Your task to perform on an android device: open the mobile data screen to see how much data has been used Image 0: 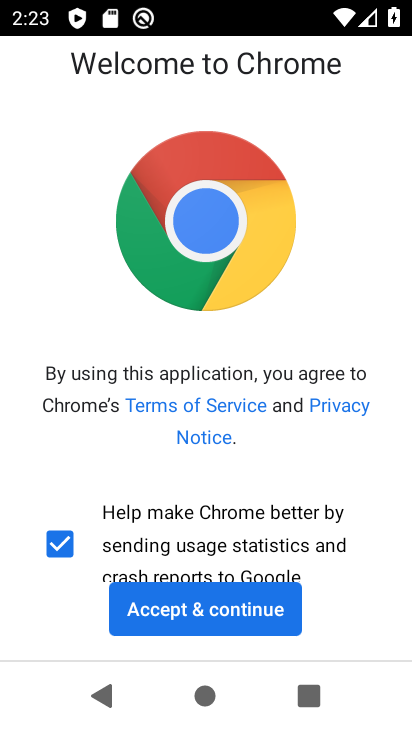
Step 0: press home button
Your task to perform on an android device: open the mobile data screen to see how much data has been used Image 1: 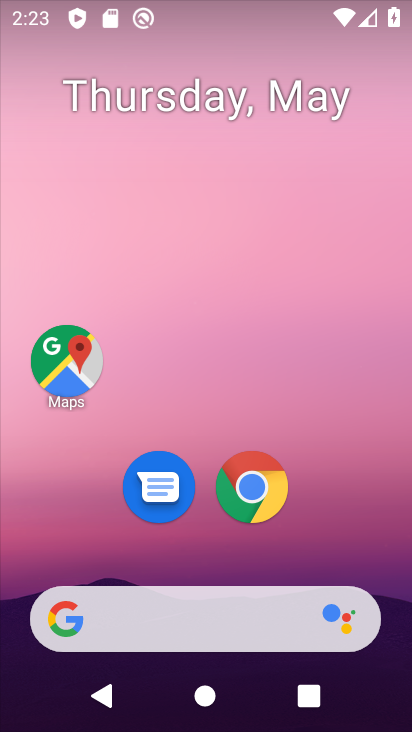
Step 1: drag from (227, 572) to (238, 176)
Your task to perform on an android device: open the mobile data screen to see how much data has been used Image 2: 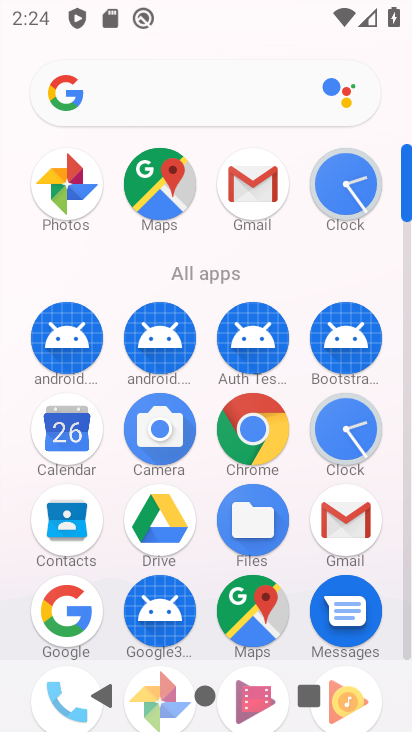
Step 2: drag from (180, 476) to (220, 196)
Your task to perform on an android device: open the mobile data screen to see how much data has been used Image 3: 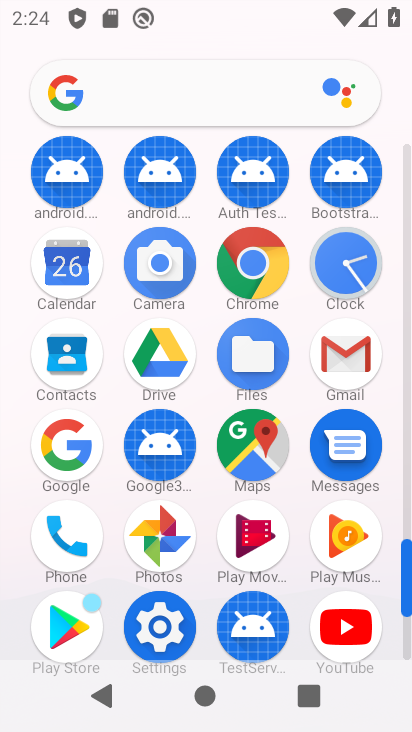
Step 3: drag from (218, 262) to (233, 182)
Your task to perform on an android device: open the mobile data screen to see how much data has been used Image 4: 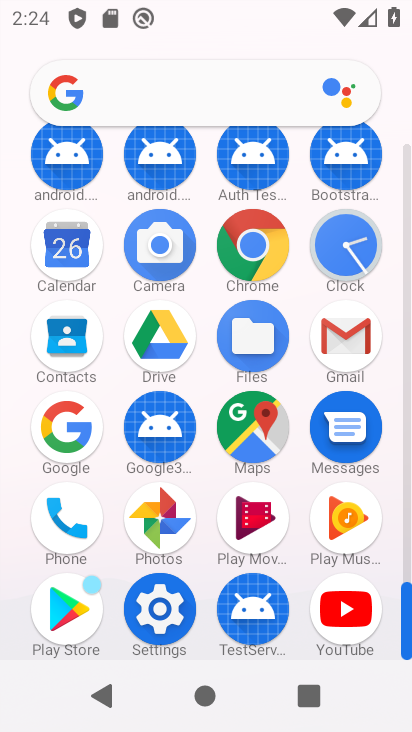
Step 4: click (166, 630)
Your task to perform on an android device: open the mobile data screen to see how much data has been used Image 5: 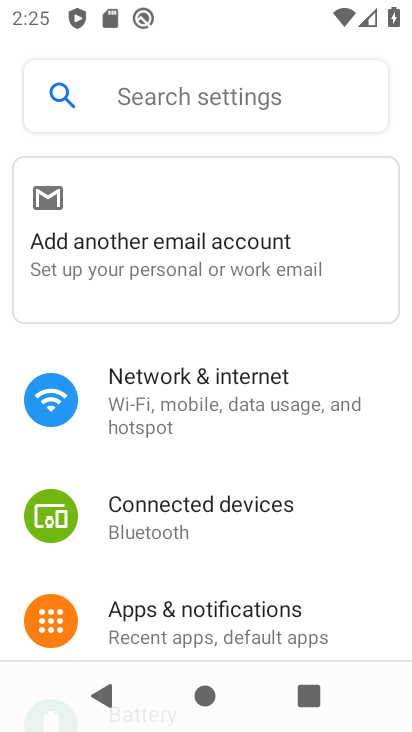
Step 5: drag from (242, 571) to (243, 371)
Your task to perform on an android device: open the mobile data screen to see how much data has been used Image 6: 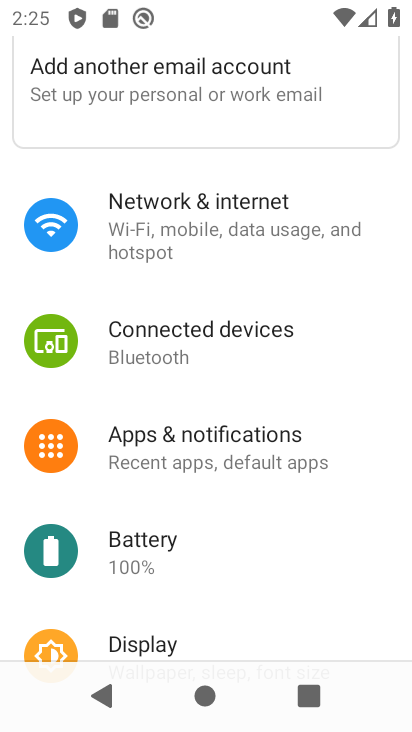
Step 6: click (260, 217)
Your task to perform on an android device: open the mobile data screen to see how much data has been used Image 7: 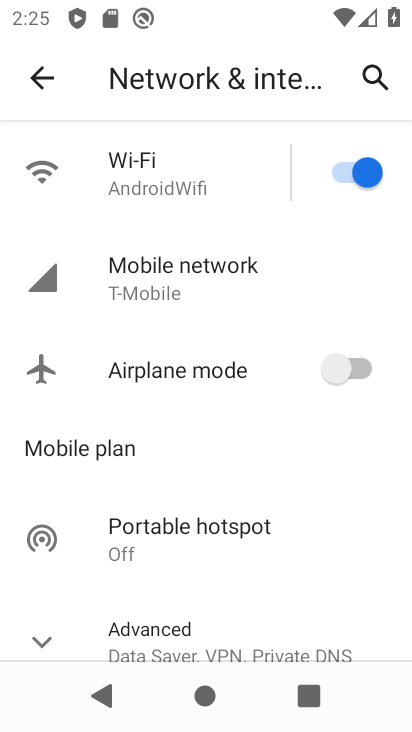
Step 7: click (176, 287)
Your task to perform on an android device: open the mobile data screen to see how much data has been used Image 8: 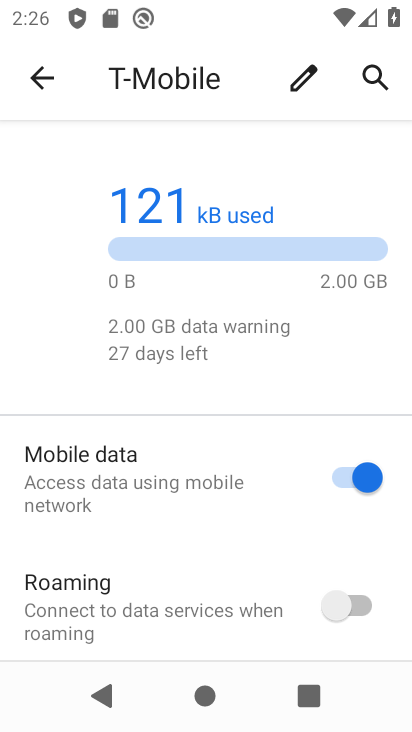
Step 8: drag from (187, 527) to (224, 10)
Your task to perform on an android device: open the mobile data screen to see how much data has been used Image 9: 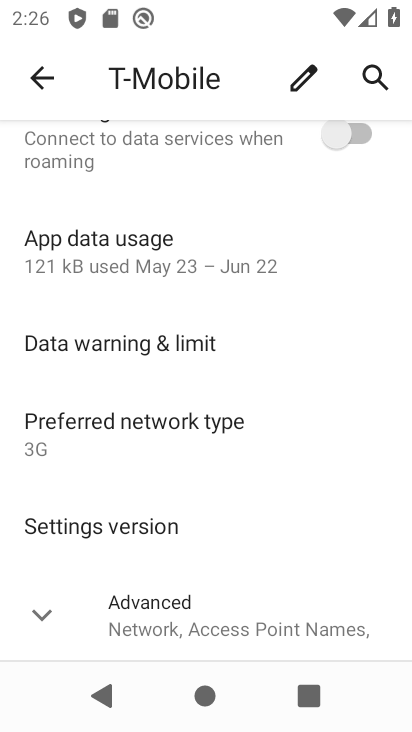
Step 9: drag from (192, 605) to (184, 390)
Your task to perform on an android device: open the mobile data screen to see how much data has been used Image 10: 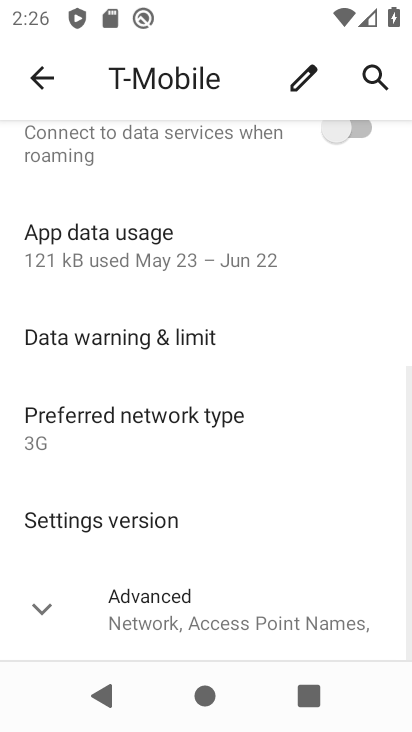
Step 10: click (240, 245)
Your task to perform on an android device: open the mobile data screen to see how much data has been used Image 11: 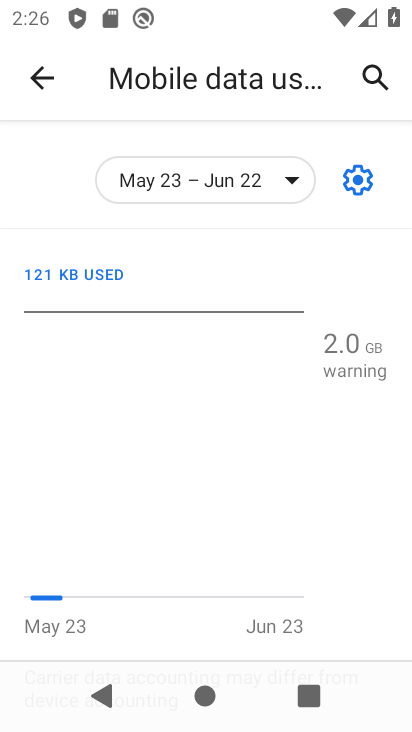
Step 11: task complete